Your task to perform on an android device: toggle pop-ups in chrome Image 0: 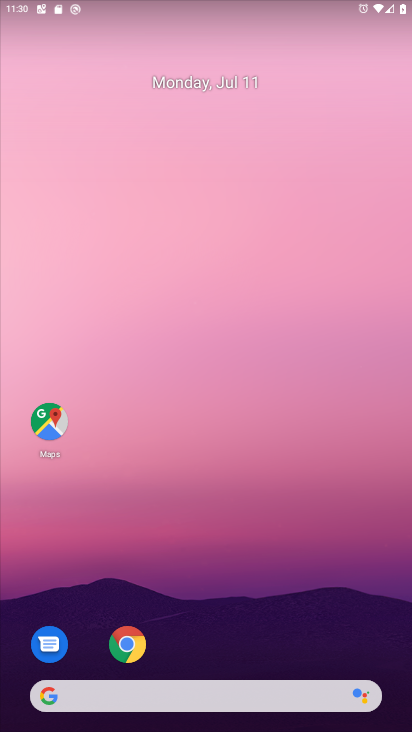
Step 0: click (128, 643)
Your task to perform on an android device: toggle pop-ups in chrome Image 1: 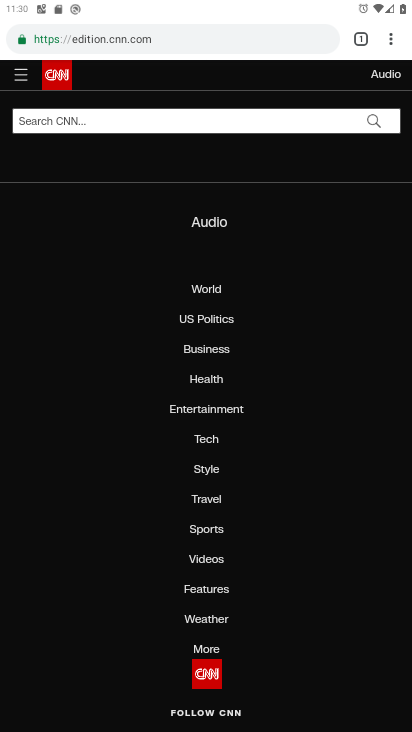
Step 1: click (393, 31)
Your task to perform on an android device: toggle pop-ups in chrome Image 2: 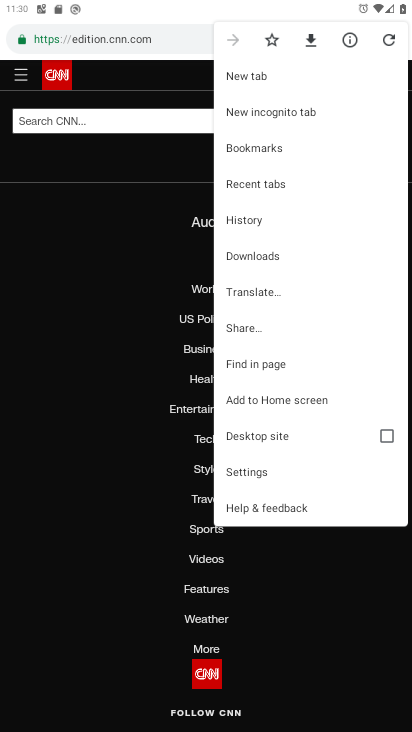
Step 2: click (267, 466)
Your task to perform on an android device: toggle pop-ups in chrome Image 3: 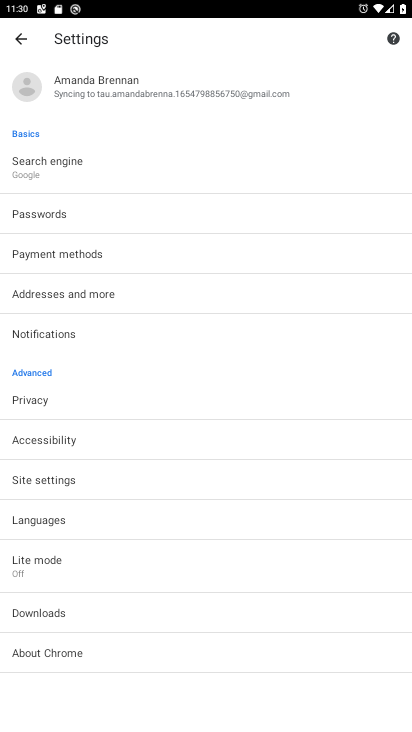
Step 3: click (86, 488)
Your task to perform on an android device: toggle pop-ups in chrome Image 4: 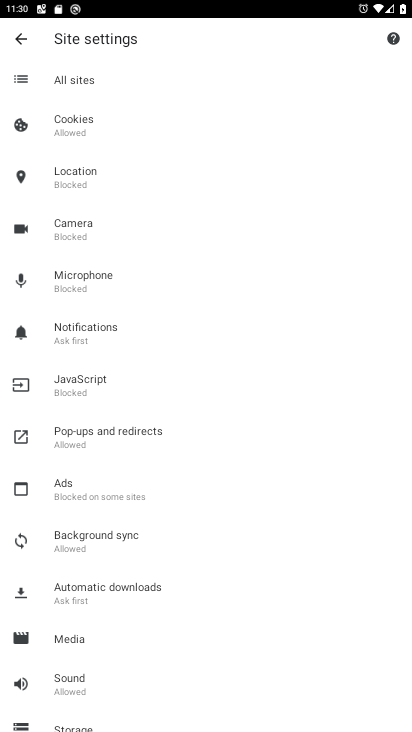
Step 4: click (91, 429)
Your task to perform on an android device: toggle pop-ups in chrome Image 5: 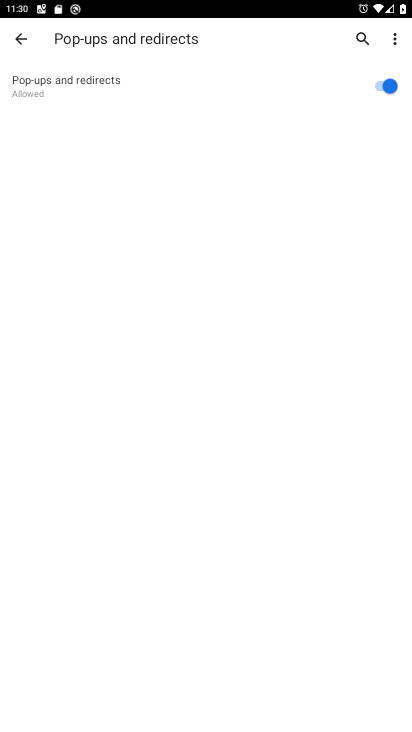
Step 5: click (381, 88)
Your task to perform on an android device: toggle pop-ups in chrome Image 6: 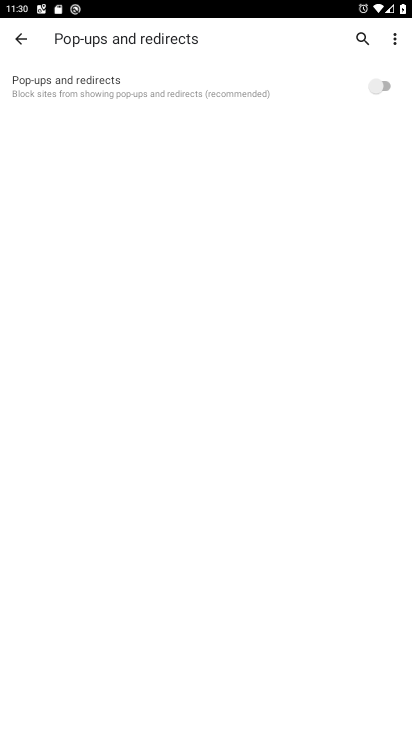
Step 6: task complete